Your task to perform on an android device: Open Android settings Image 0: 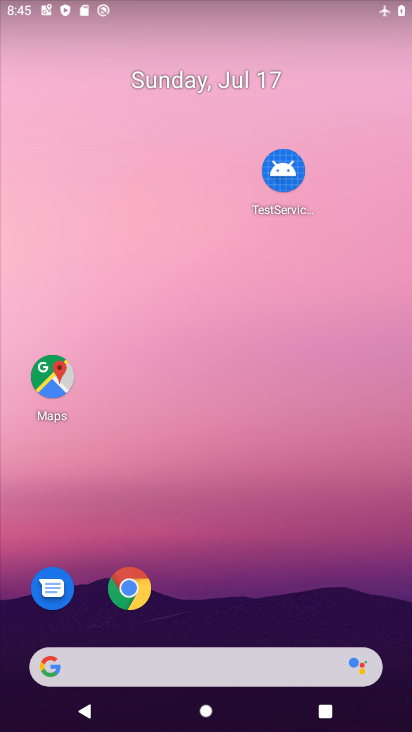
Step 0: drag from (243, 616) to (310, 135)
Your task to perform on an android device: Open Android settings Image 1: 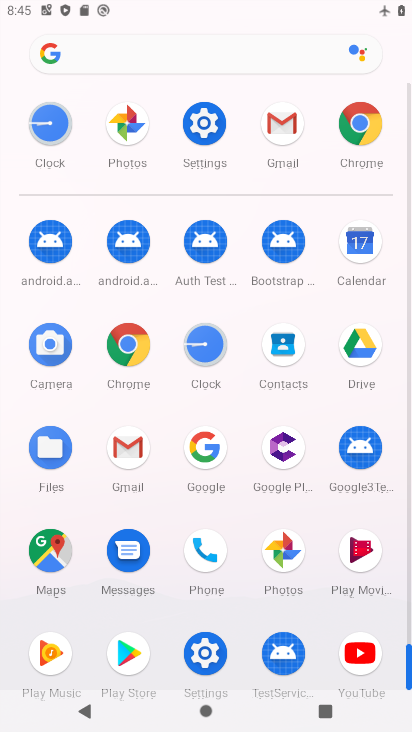
Step 1: click (208, 152)
Your task to perform on an android device: Open Android settings Image 2: 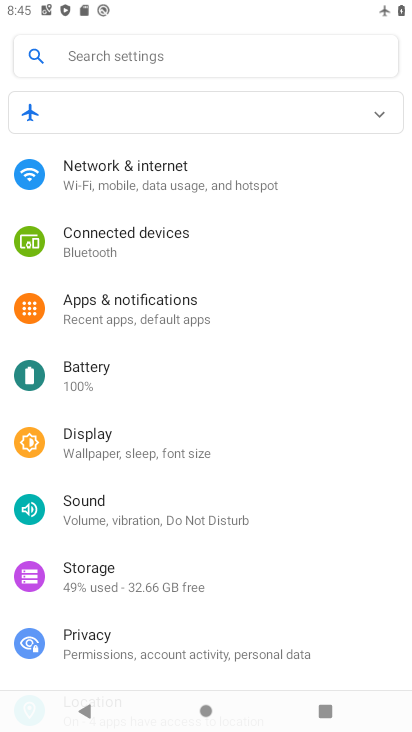
Step 2: drag from (175, 513) to (194, 257)
Your task to perform on an android device: Open Android settings Image 3: 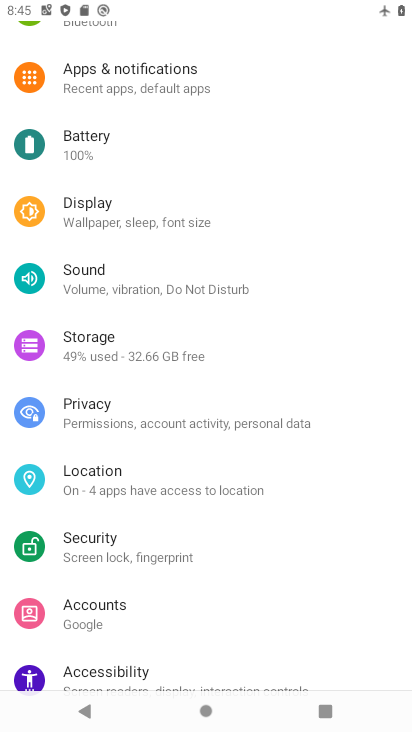
Step 3: drag from (176, 505) to (214, 185)
Your task to perform on an android device: Open Android settings Image 4: 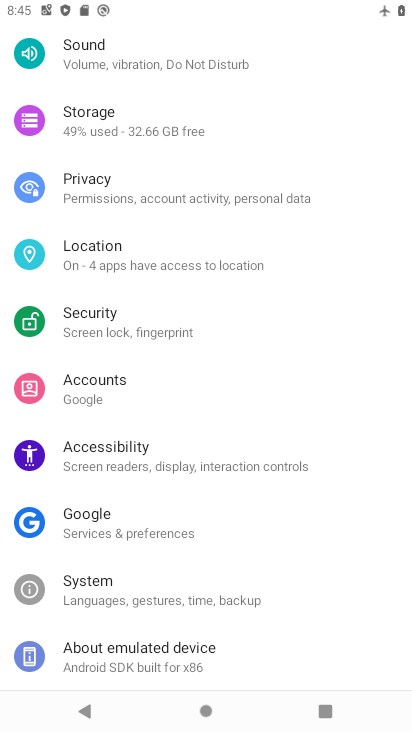
Step 4: drag from (160, 488) to (197, 198)
Your task to perform on an android device: Open Android settings Image 5: 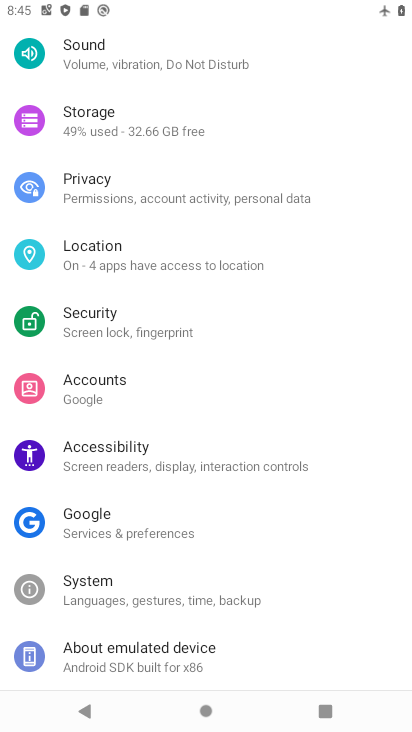
Step 5: click (157, 659)
Your task to perform on an android device: Open Android settings Image 6: 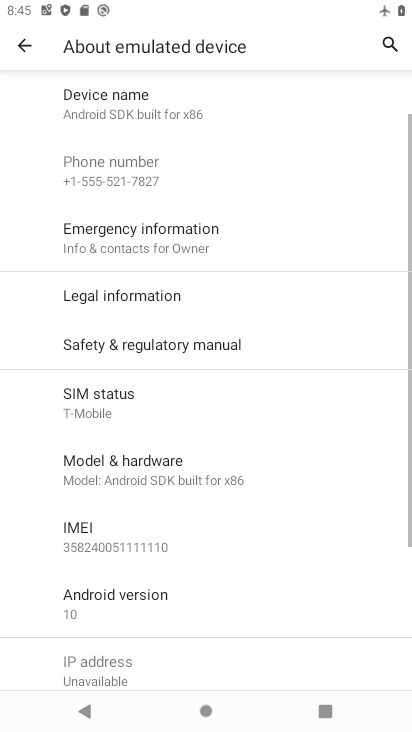
Step 6: click (123, 608)
Your task to perform on an android device: Open Android settings Image 7: 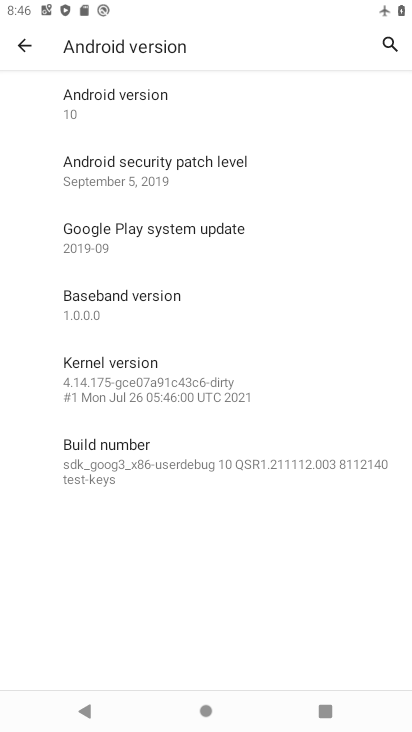
Step 7: task complete